Your task to perform on an android device: toggle notifications settings in the gmail app Image 0: 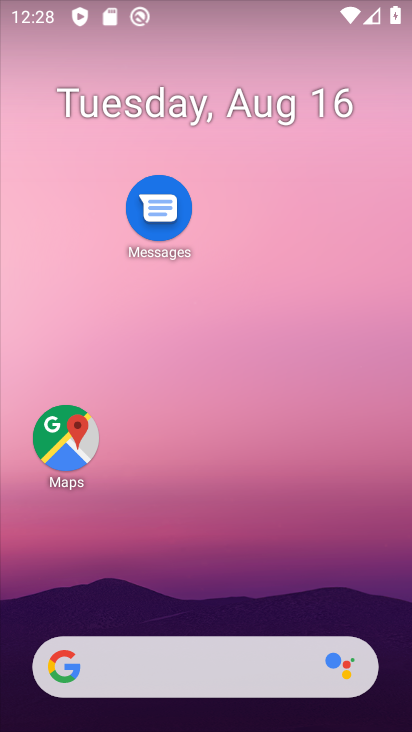
Step 0: drag from (234, 606) to (371, 59)
Your task to perform on an android device: toggle notifications settings in the gmail app Image 1: 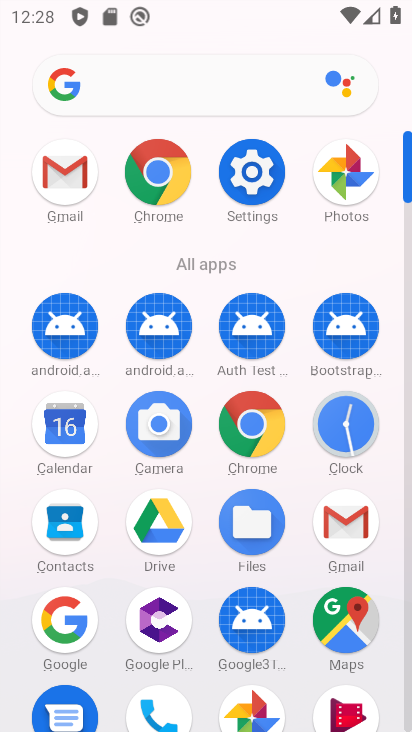
Step 1: click (331, 531)
Your task to perform on an android device: toggle notifications settings in the gmail app Image 2: 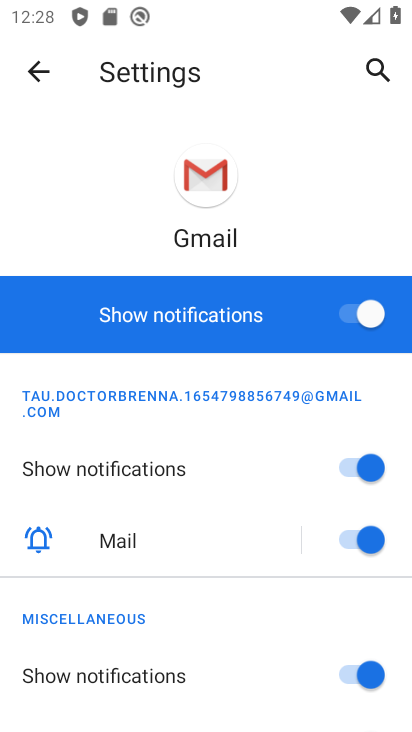
Step 2: click (30, 71)
Your task to perform on an android device: toggle notifications settings in the gmail app Image 3: 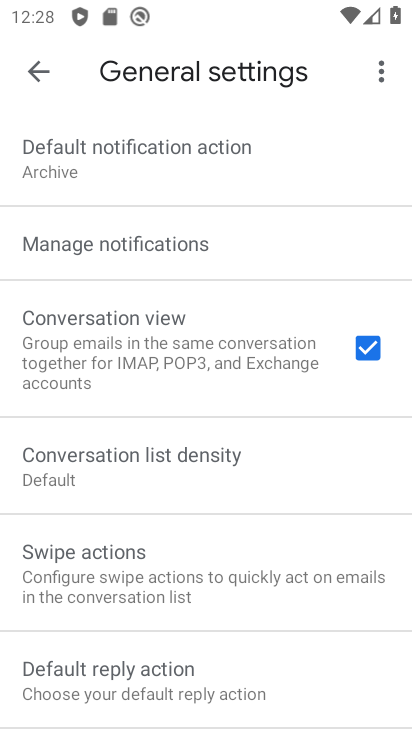
Step 3: click (83, 253)
Your task to perform on an android device: toggle notifications settings in the gmail app Image 4: 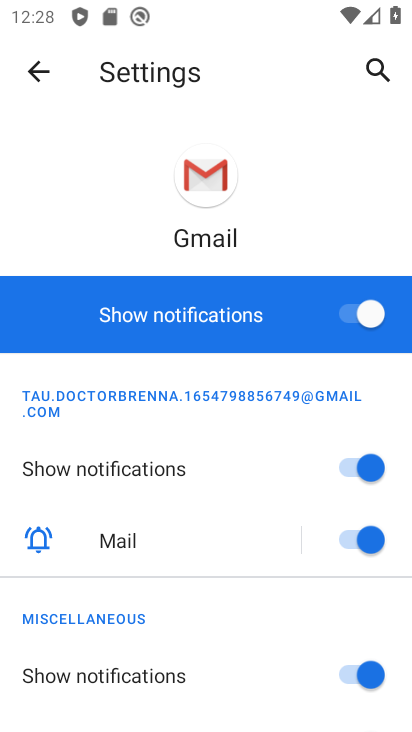
Step 4: task complete